Your task to perform on an android device: turn off location Image 0: 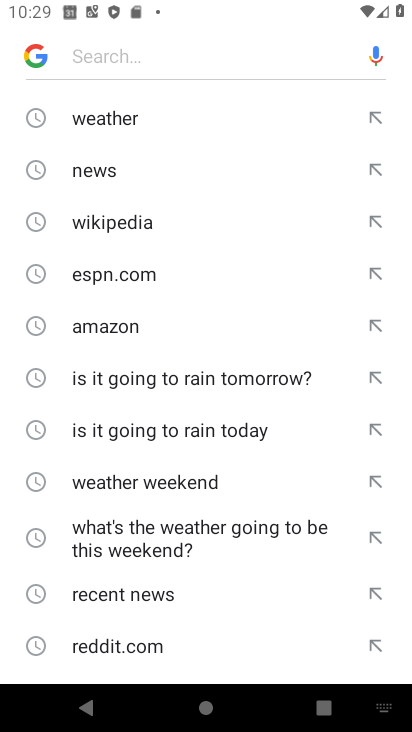
Step 0: press home button
Your task to perform on an android device: turn off location Image 1: 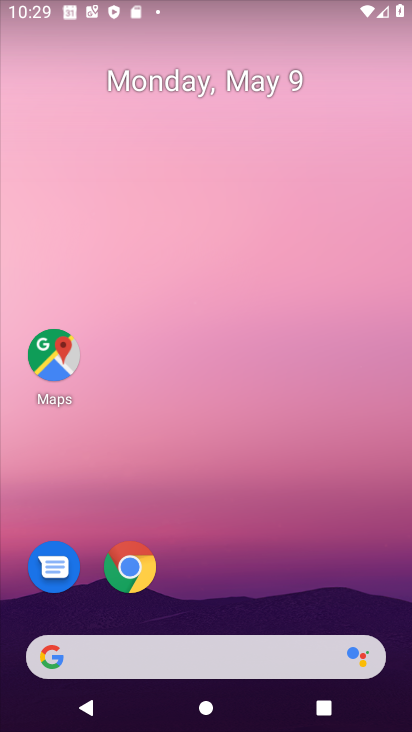
Step 1: drag from (195, 657) to (225, 156)
Your task to perform on an android device: turn off location Image 2: 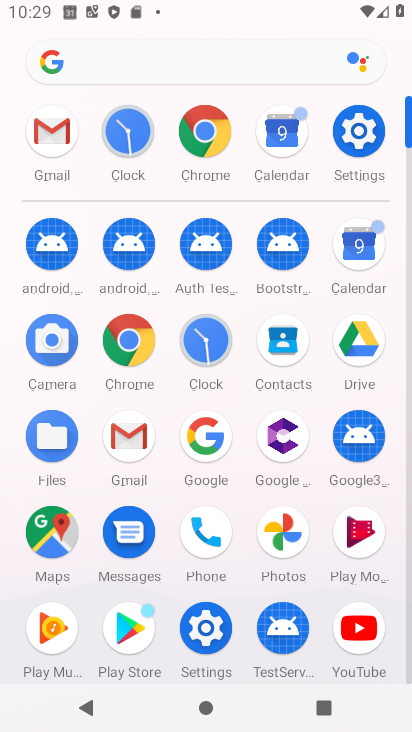
Step 2: click (213, 614)
Your task to perform on an android device: turn off location Image 3: 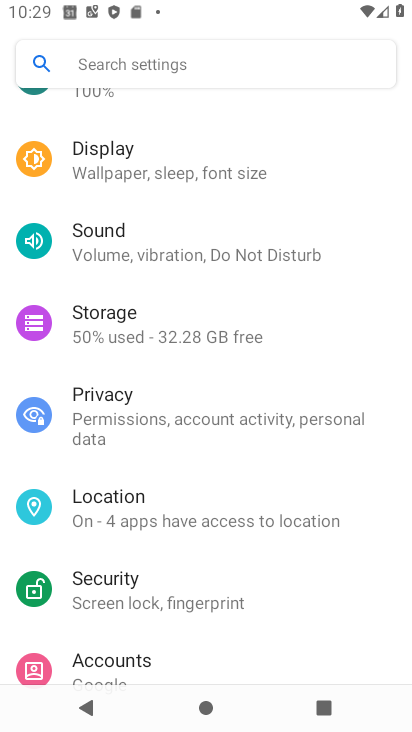
Step 3: click (141, 514)
Your task to perform on an android device: turn off location Image 4: 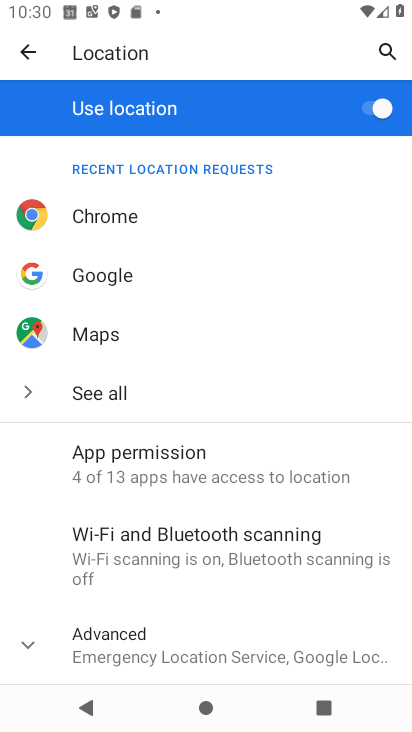
Step 4: click (368, 107)
Your task to perform on an android device: turn off location Image 5: 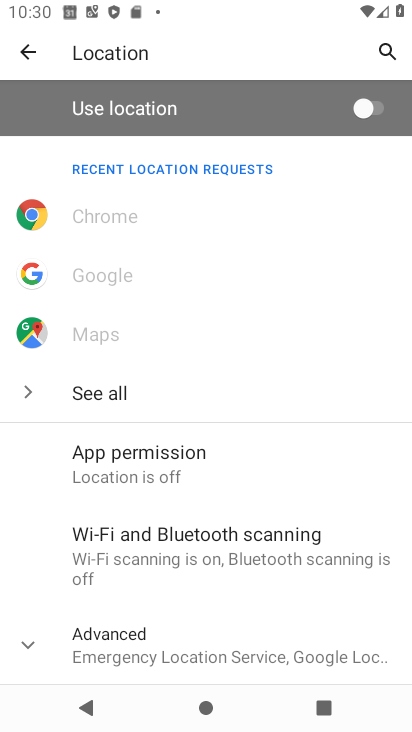
Step 5: task complete